Your task to perform on an android device: turn on airplane mode Image 0: 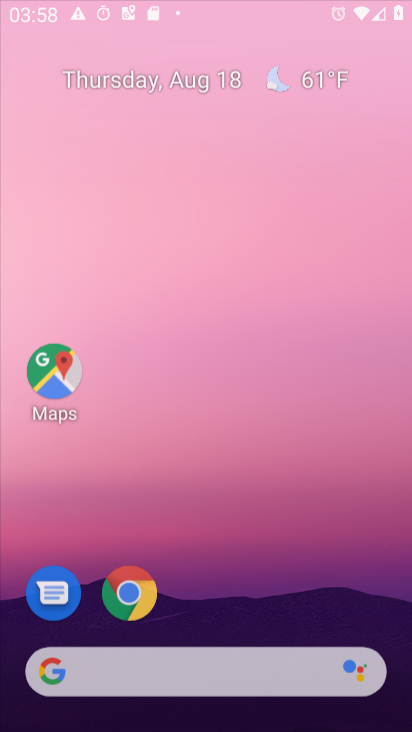
Step 0: press home button
Your task to perform on an android device: turn on airplane mode Image 1: 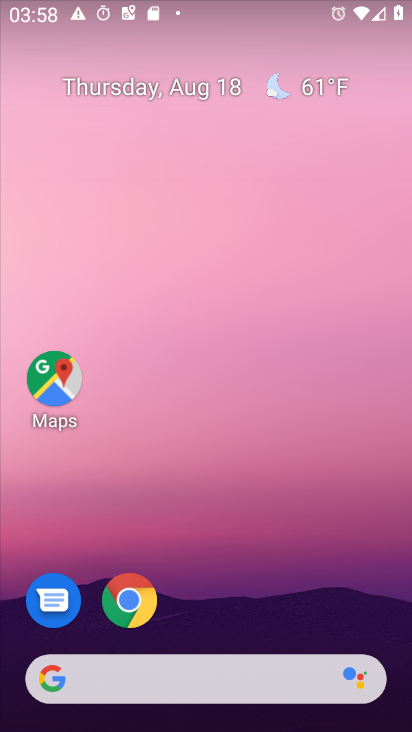
Step 1: drag from (248, 41) to (265, 614)
Your task to perform on an android device: turn on airplane mode Image 2: 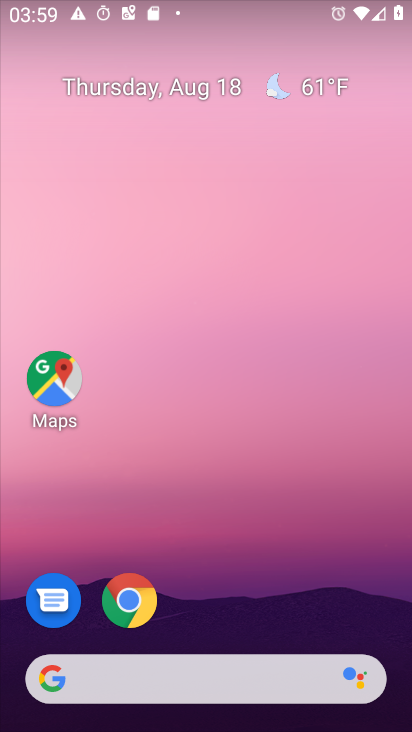
Step 2: drag from (222, 7) to (242, 610)
Your task to perform on an android device: turn on airplane mode Image 3: 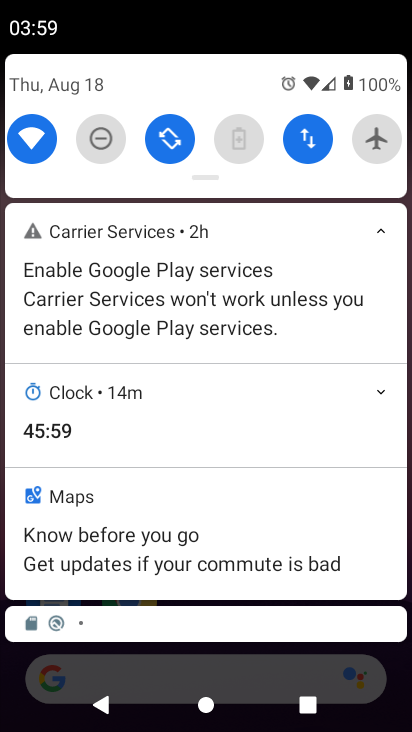
Step 3: click (369, 136)
Your task to perform on an android device: turn on airplane mode Image 4: 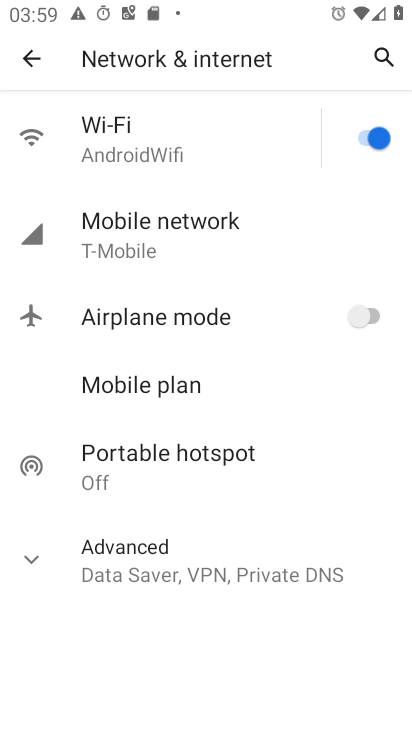
Step 4: click (360, 315)
Your task to perform on an android device: turn on airplane mode Image 5: 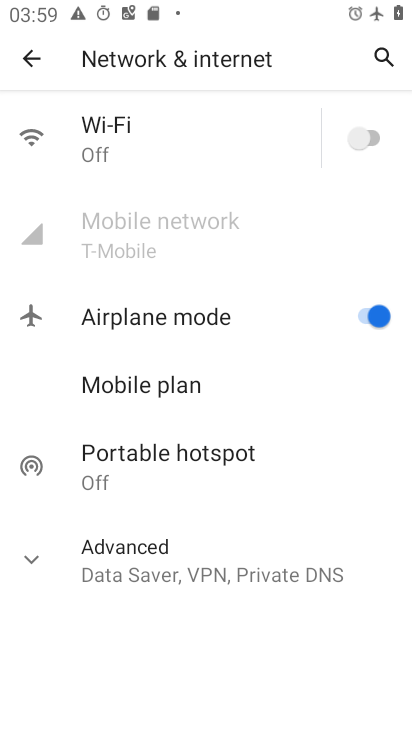
Step 5: task complete